Your task to perform on an android device: star an email in the gmail app Image 0: 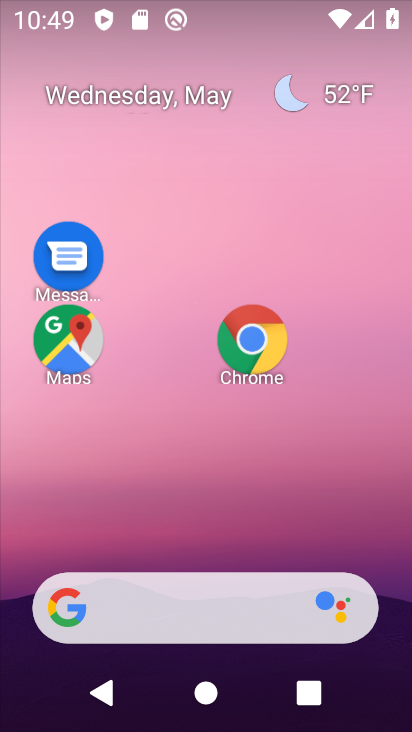
Step 0: drag from (191, 488) to (174, 62)
Your task to perform on an android device: star an email in the gmail app Image 1: 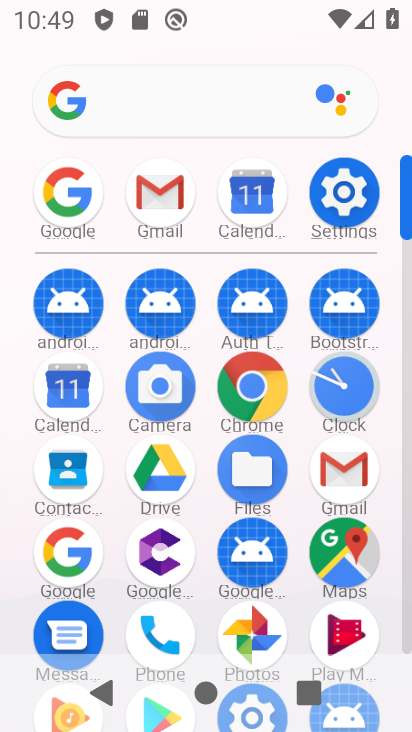
Step 1: click (155, 199)
Your task to perform on an android device: star an email in the gmail app Image 2: 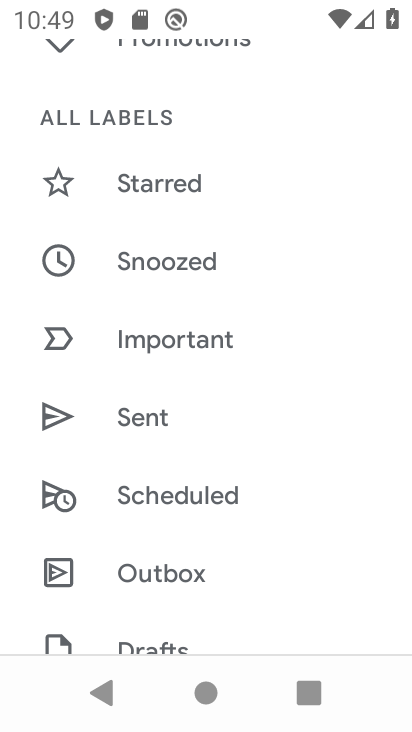
Step 2: drag from (209, 579) to (219, 292)
Your task to perform on an android device: star an email in the gmail app Image 3: 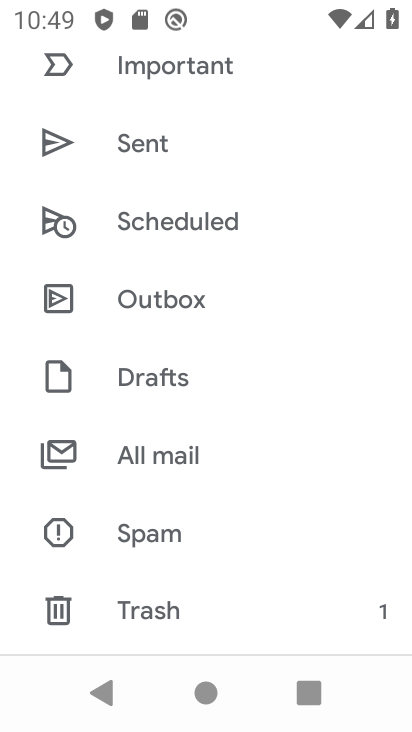
Step 3: click (214, 453)
Your task to perform on an android device: star an email in the gmail app Image 4: 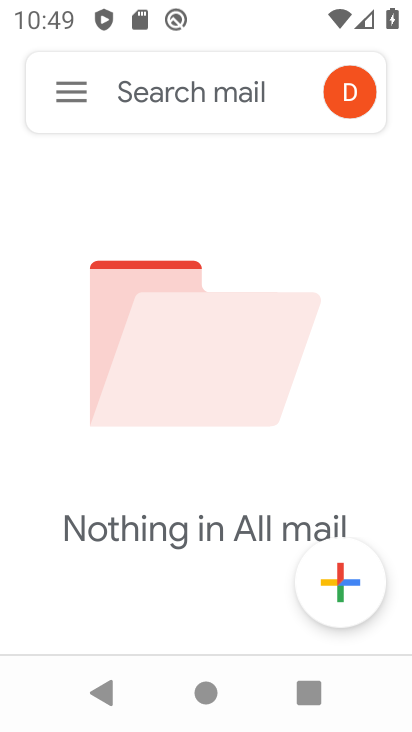
Step 4: task complete